Your task to perform on an android device: What's on my calendar today? Image 0: 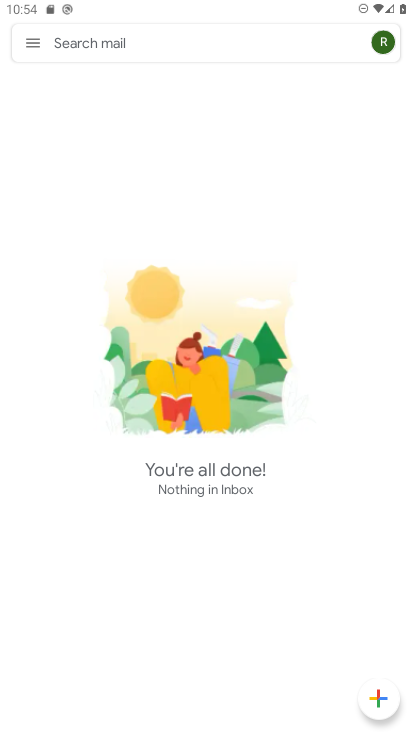
Step 0: press home button
Your task to perform on an android device: What's on my calendar today? Image 1: 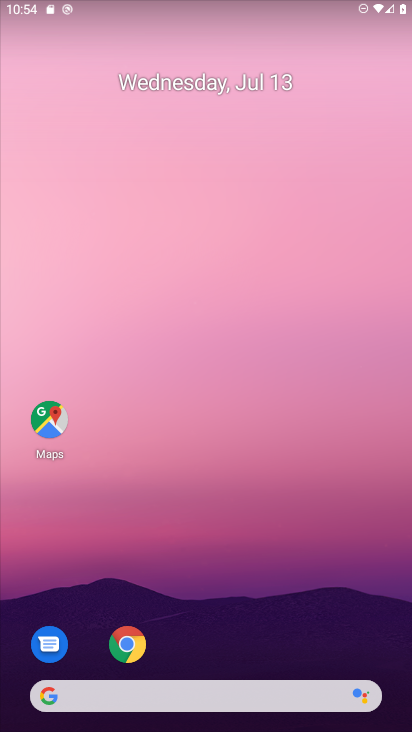
Step 1: drag from (200, 549) to (184, 1)
Your task to perform on an android device: What's on my calendar today? Image 2: 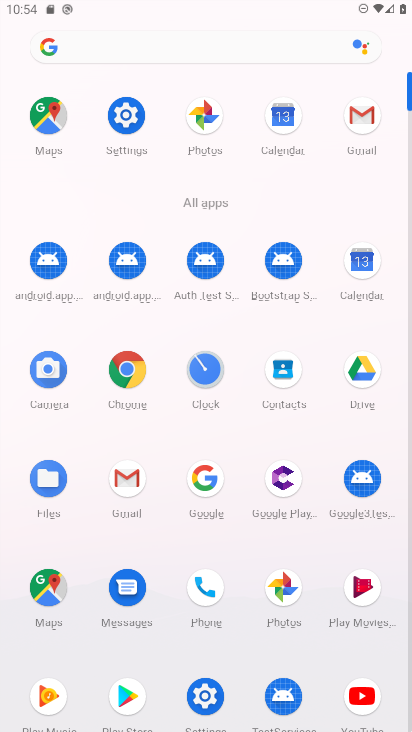
Step 2: click (361, 267)
Your task to perform on an android device: What's on my calendar today? Image 3: 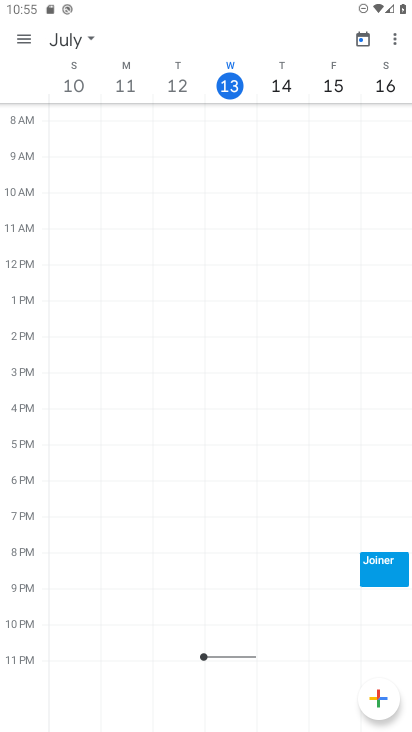
Step 3: click (224, 80)
Your task to perform on an android device: What's on my calendar today? Image 4: 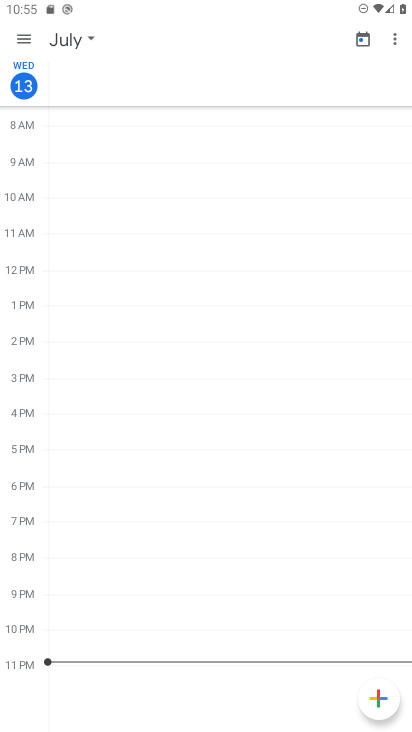
Step 4: task complete